Your task to perform on an android device: Open Google Chrome Image 0: 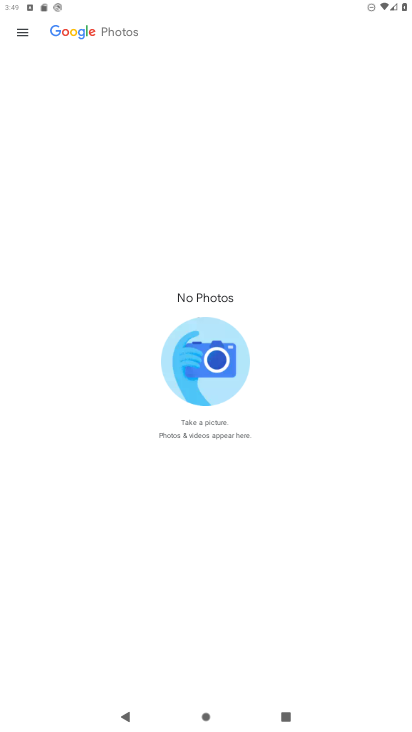
Step 0: press home button
Your task to perform on an android device: Open Google Chrome Image 1: 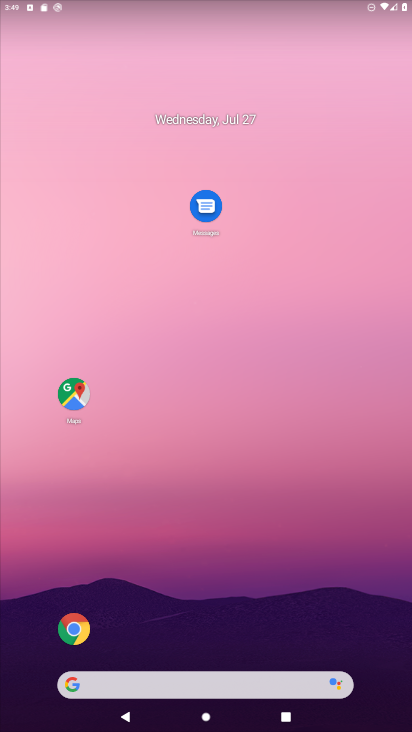
Step 1: click (74, 618)
Your task to perform on an android device: Open Google Chrome Image 2: 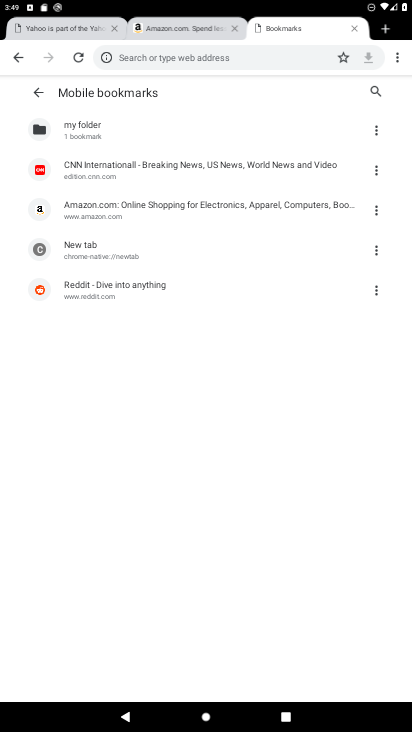
Step 2: task complete